Your task to perform on an android device: set the timer Image 0: 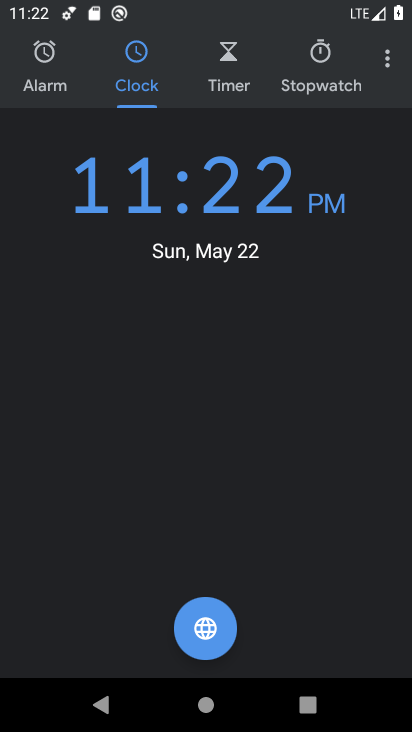
Step 0: press home button
Your task to perform on an android device: set the timer Image 1: 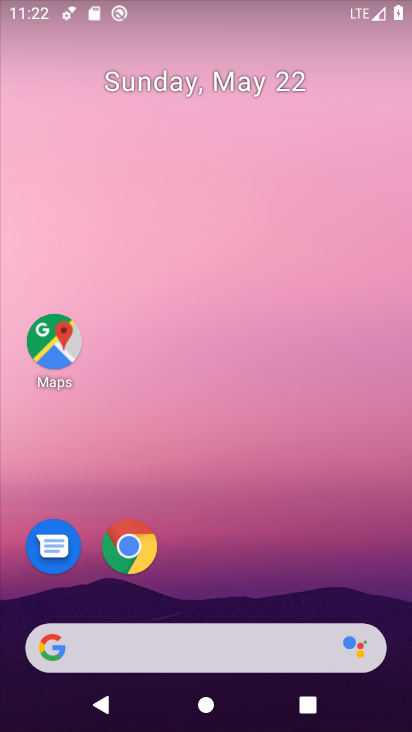
Step 1: drag from (209, 676) to (221, 162)
Your task to perform on an android device: set the timer Image 2: 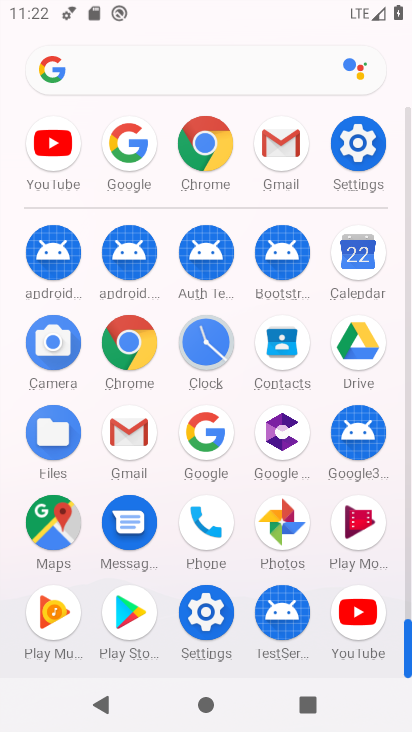
Step 2: click (209, 347)
Your task to perform on an android device: set the timer Image 3: 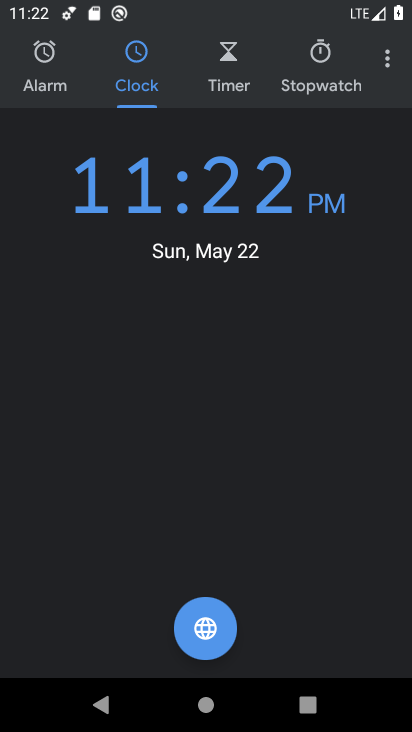
Step 3: click (237, 77)
Your task to perform on an android device: set the timer Image 4: 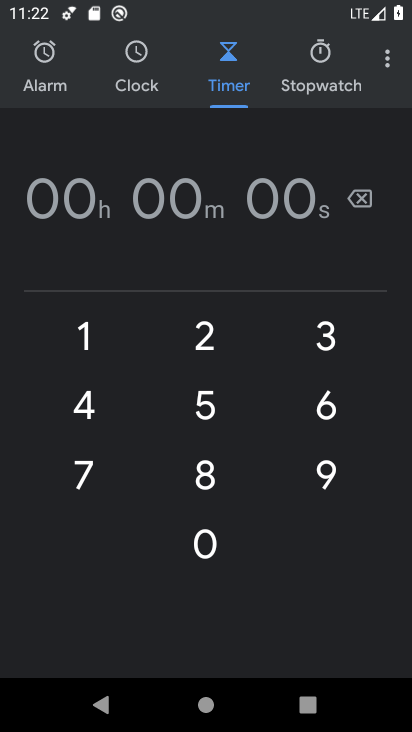
Step 4: click (210, 332)
Your task to perform on an android device: set the timer Image 5: 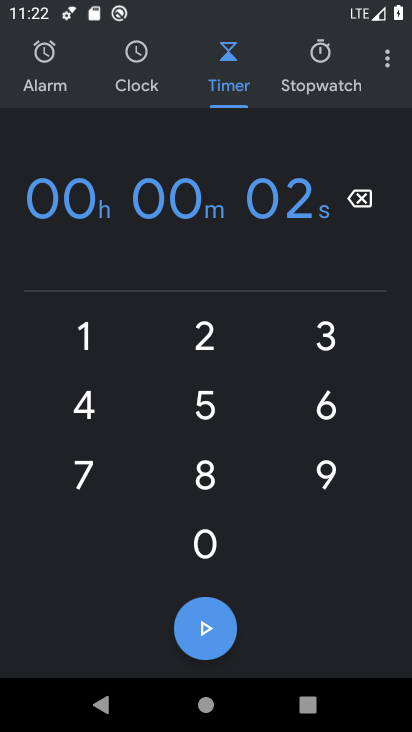
Step 5: click (202, 614)
Your task to perform on an android device: set the timer Image 6: 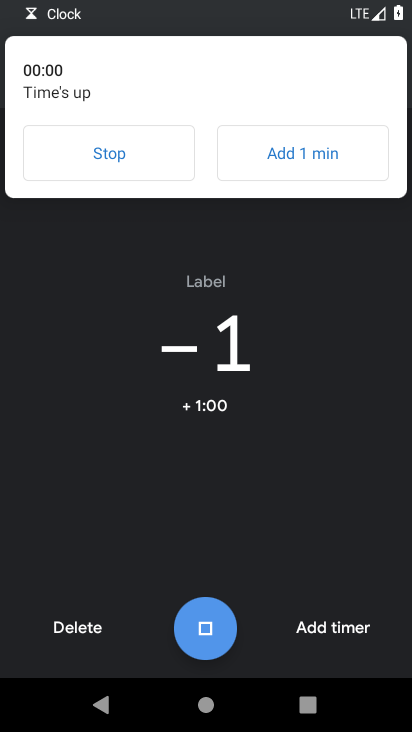
Step 6: task complete